Your task to perform on an android device: Play the last video I watched on Youtube Image 0: 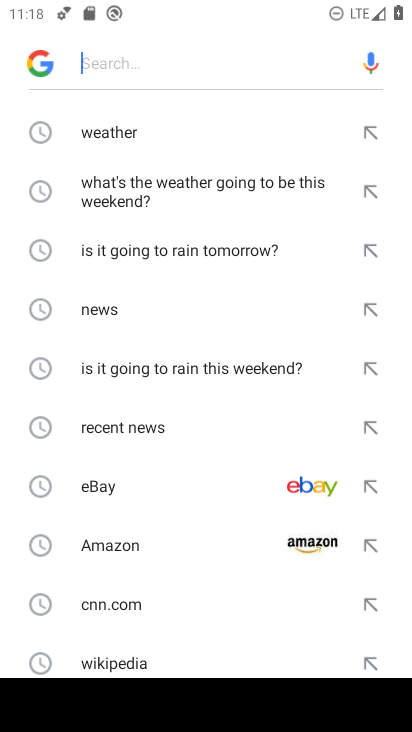
Step 0: press home button
Your task to perform on an android device: Play the last video I watched on Youtube Image 1: 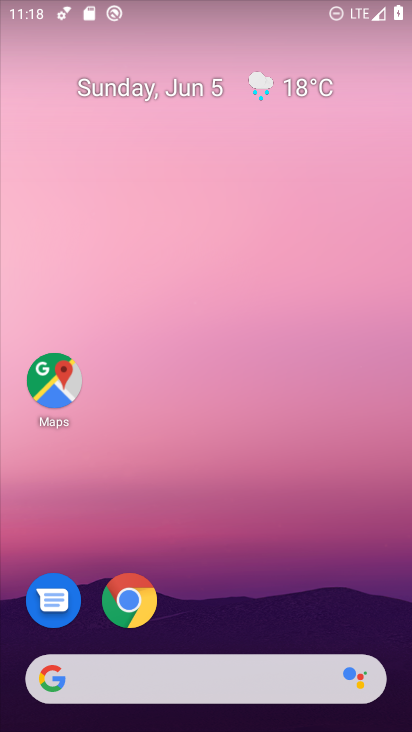
Step 1: drag from (221, 495) to (189, 190)
Your task to perform on an android device: Play the last video I watched on Youtube Image 2: 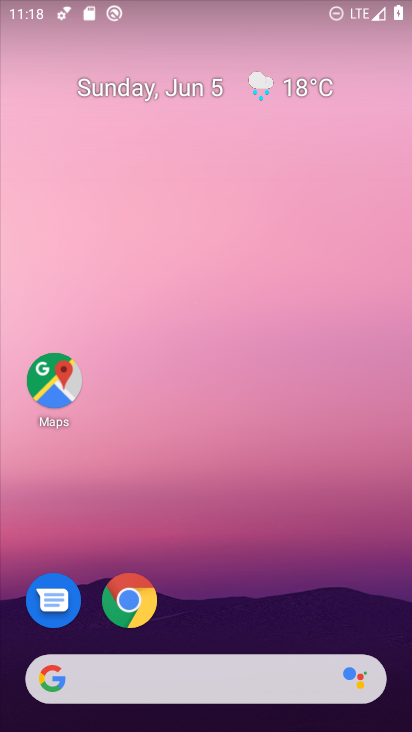
Step 2: drag from (226, 619) to (213, 188)
Your task to perform on an android device: Play the last video I watched on Youtube Image 3: 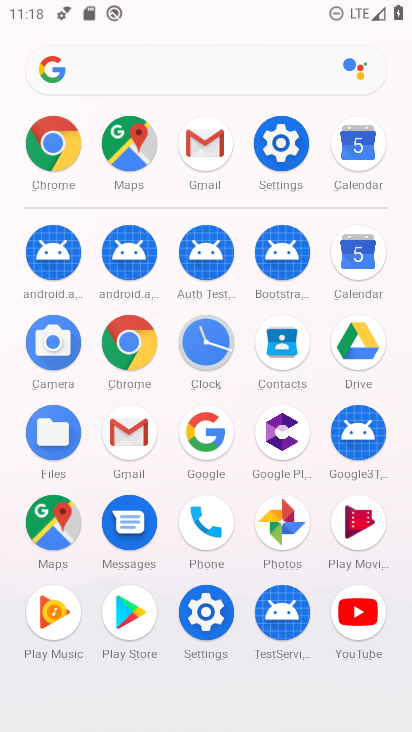
Step 3: click (357, 608)
Your task to perform on an android device: Play the last video I watched on Youtube Image 4: 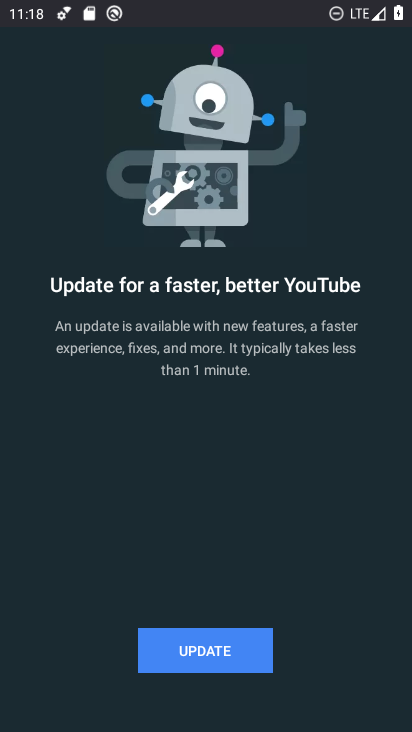
Step 4: click (190, 640)
Your task to perform on an android device: Play the last video I watched on Youtube Image 5: 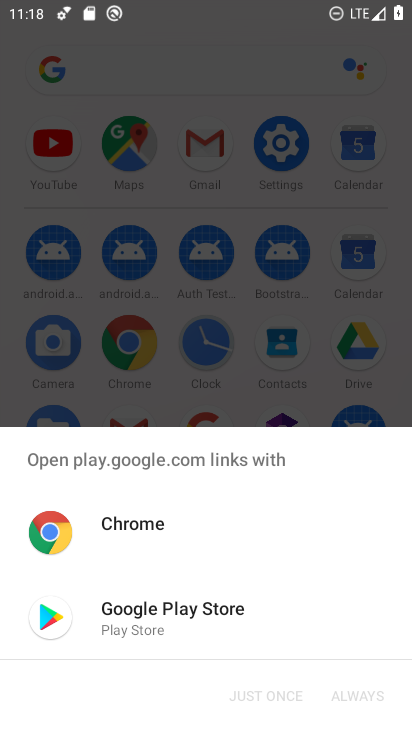
Step 5: click (186, 604)
Your task to perform on an android device: Play the last video I watched on Youtube Image 6: 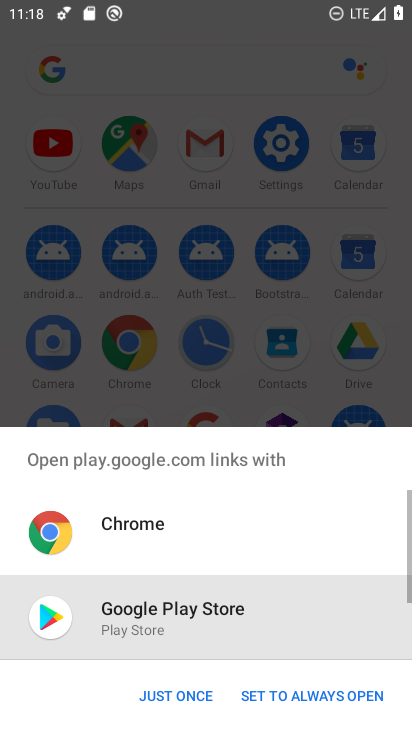
Step 6: click (196, 699)
Your task to perform on an android device: Play the last video I watched on Youtube Image 7: 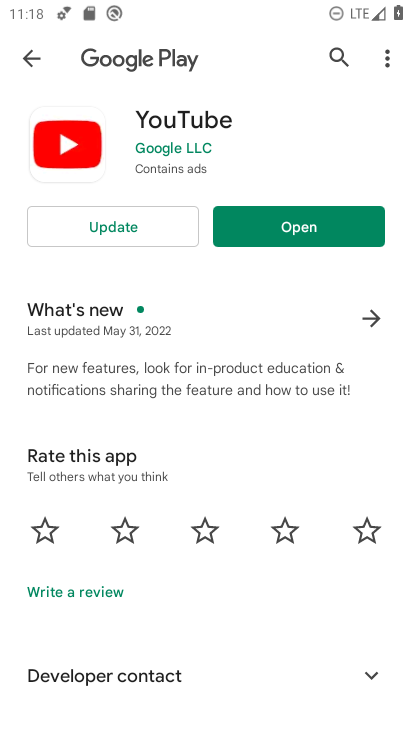
Step 7: click (127, 232)
Your task to perform on an android device: Play the last video I watched on Youtube Image 8: 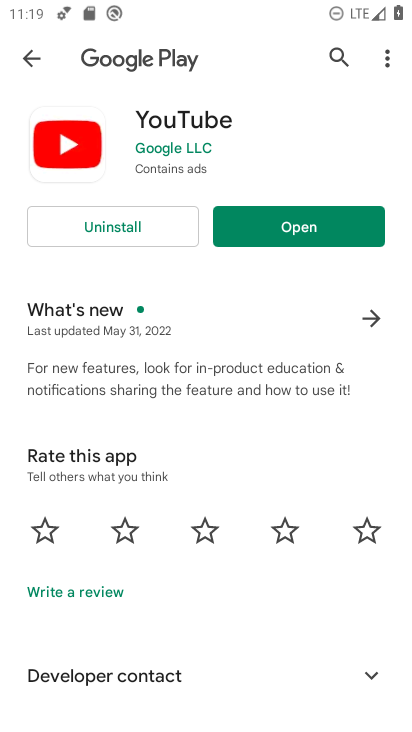
Step 8: click (263, 239)
Your task to perform on an android device: Play the last video I watched on Youtube Image 9: 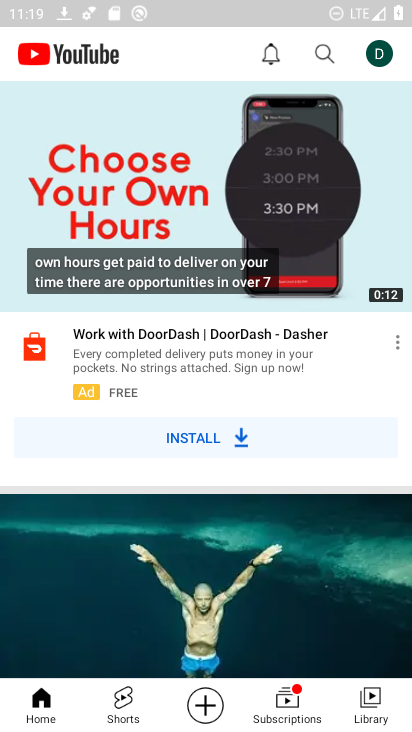
Step 9: click (385, 706)
Your task to perform on an android device: Play the last video I watched on Youtube Image 10: 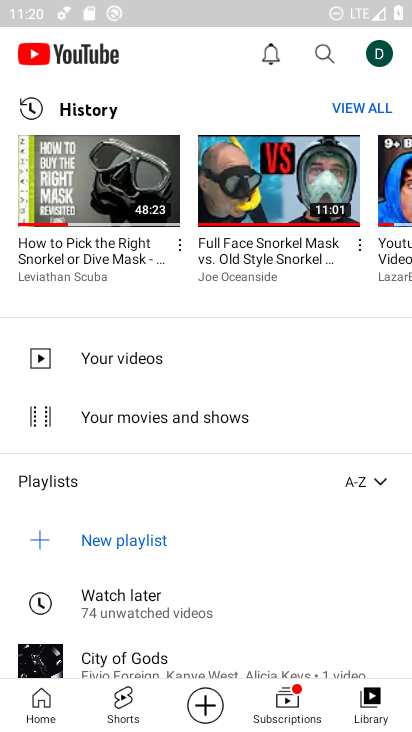
Step 10: click (118, 181)
Your task to perform on an android device: Play the last video I watched on Youtube Image 11: 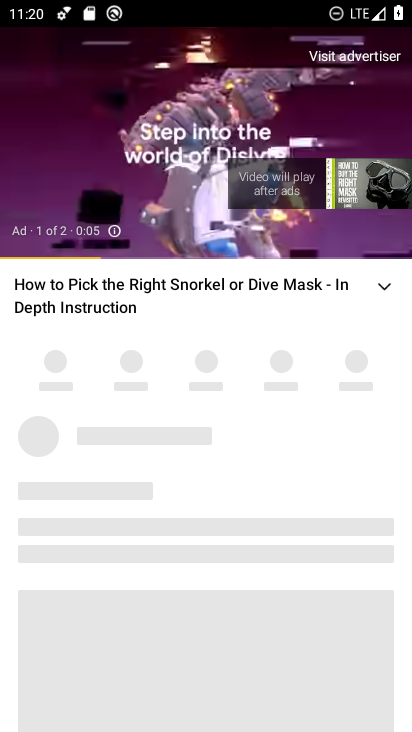
Step 11: task complete